Your task to perform on an android device: choose inbox layout in the gmail app Image 0: 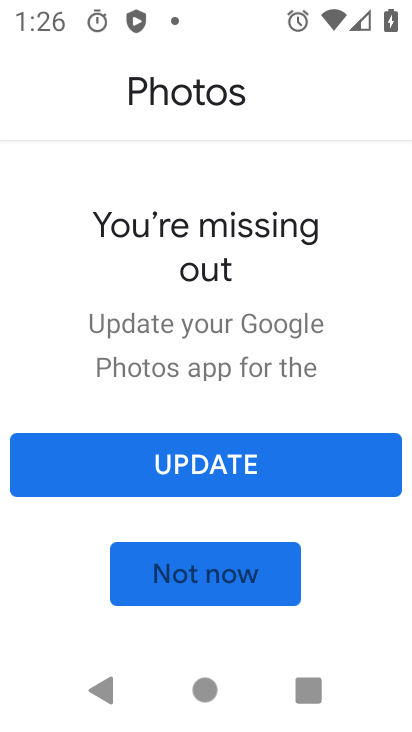
Step 0: click (167, 563)
Your task to perform on an android device: choose inbox layout in the gmail app Image 1: 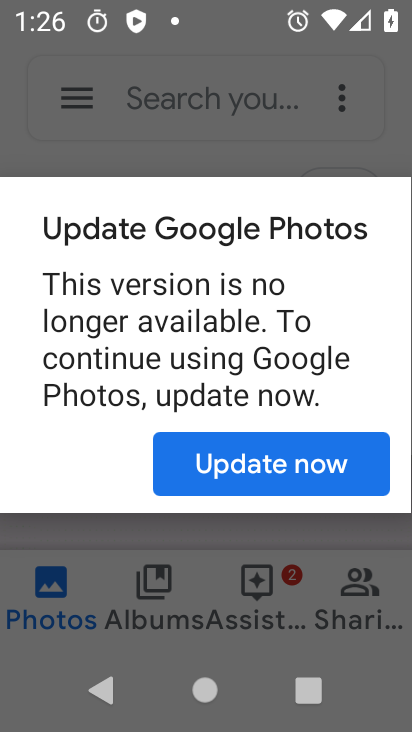
Step 1: click (250, 485)
Your task to perform on an android device: choose inbox layout in the gmail app Image 2: 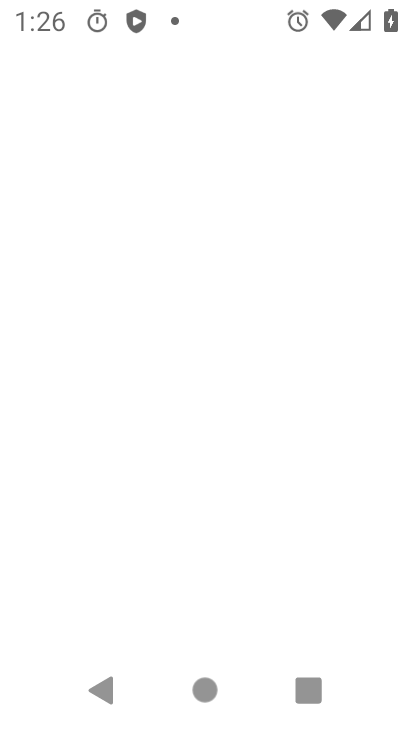
Step 2: press home button
Your task to perform on an android device: choose inbox layout in the gmail app Image 3: 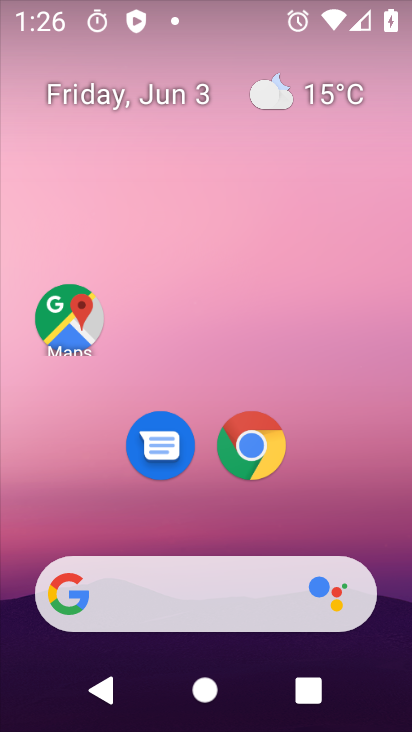
Step 3: drag from (193, 519) to (213, 171)
Your task to perform on an android device: choose inbox layout in the gmail app Image 4: 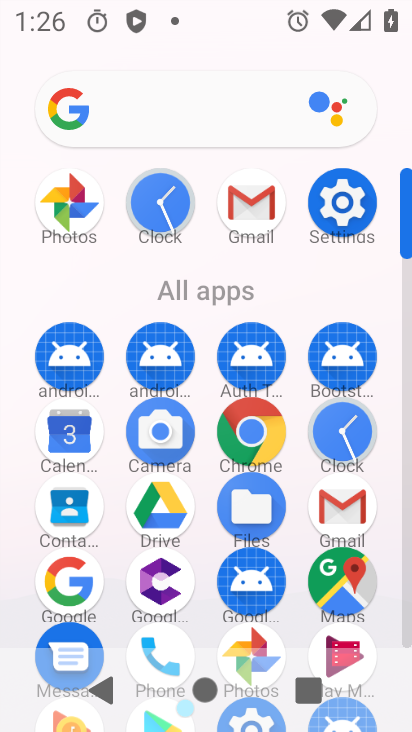
Step 4: click (265, 187)
Your task to perform on an android device: choose inbox layout in the gmail app Image 5: 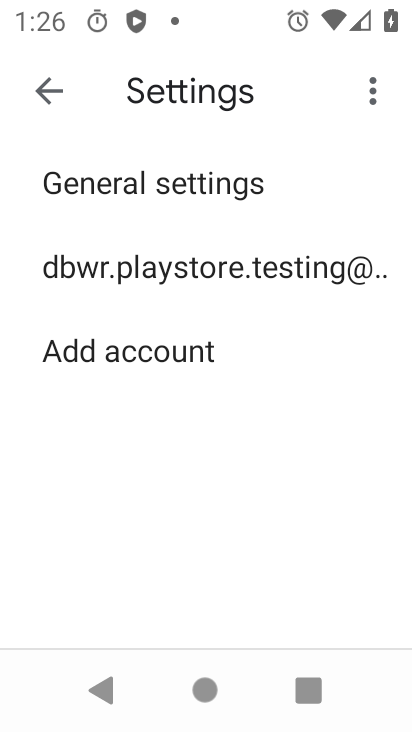
Step 5: click (190, 260)
Your task to perform on an android device: choose inbox layout in the gmail app Image 6: 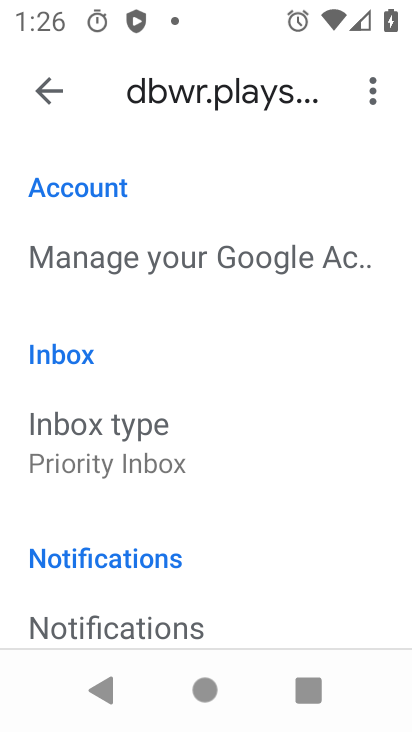
Step 6: drag from (131, 473) to (183, 184)
Your task to perform on an android device: choose inbox layout in the gmail app Image 7: 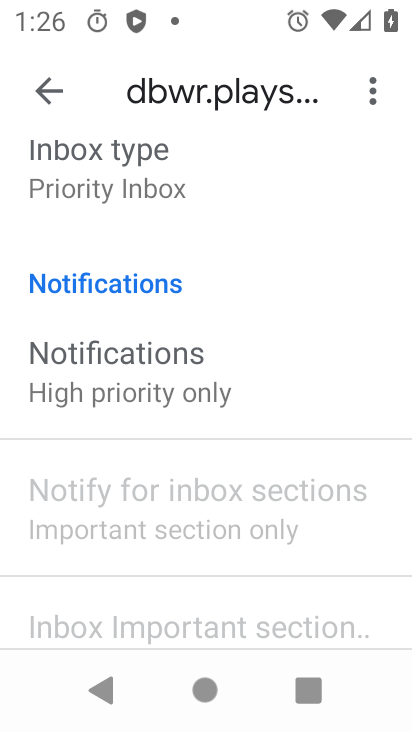
Step 7: click (130, 206)
Your task to perform on an android device: choose inbox layout in the gmail app Image 8: 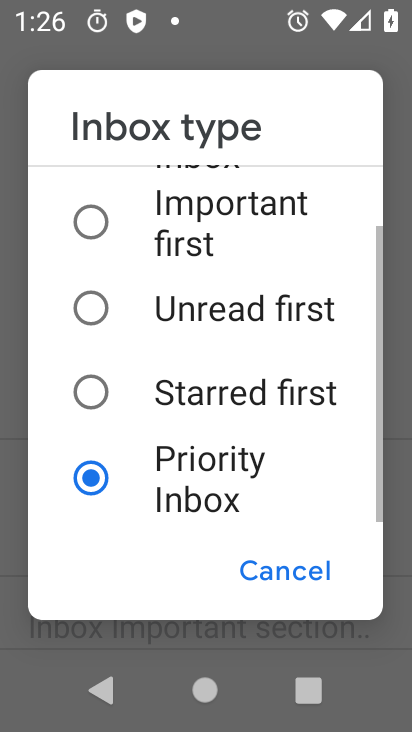
Step 8: click (243, 315)
Your task to perform on an android device: choose inbox layout in the gmail app Image 9: 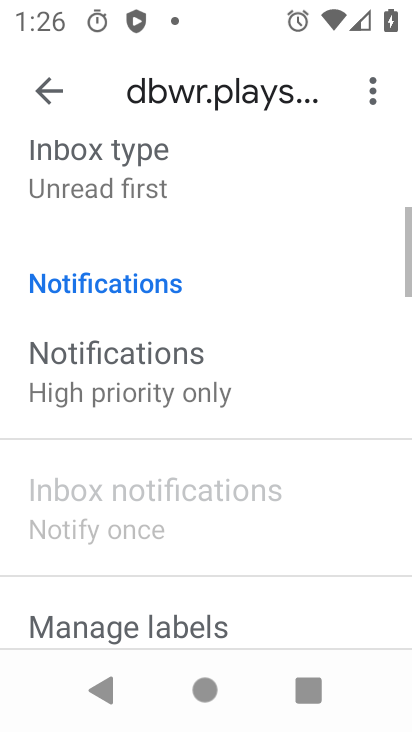
Step 9: task complete